Your task to perform on an android device: Go to settings Image 0: 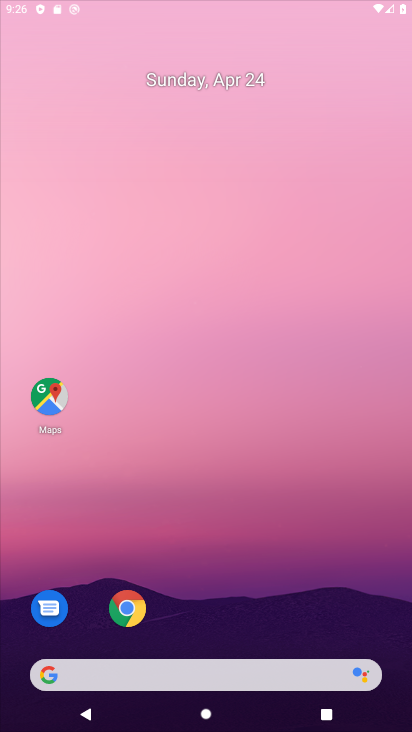
Step 0: click (235, 228)
Your task to perform on an android device: Go to settings Image 1: 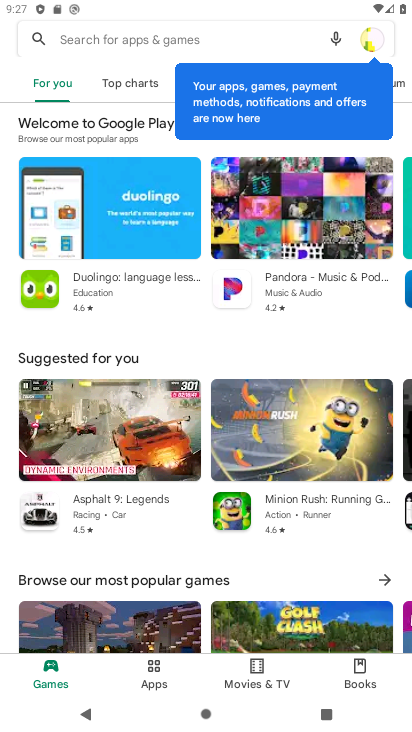
Step 1: press home button
Your task to perform on an android device: Go to settings Image 2: 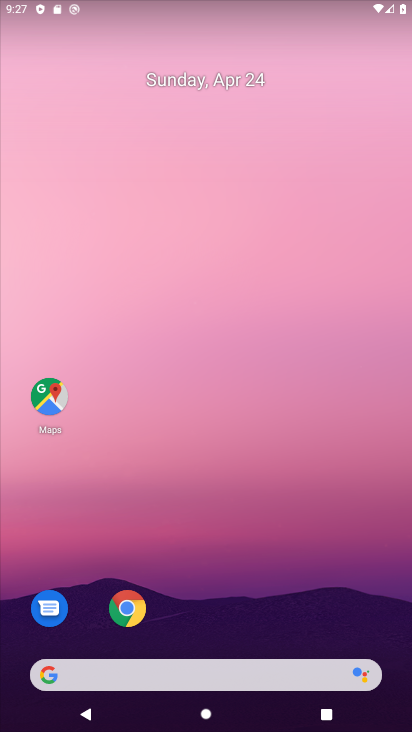
Step 2: drag from (316, 692) to (218, 146)
Your task to perform on an android device: Go to settings Image 3: 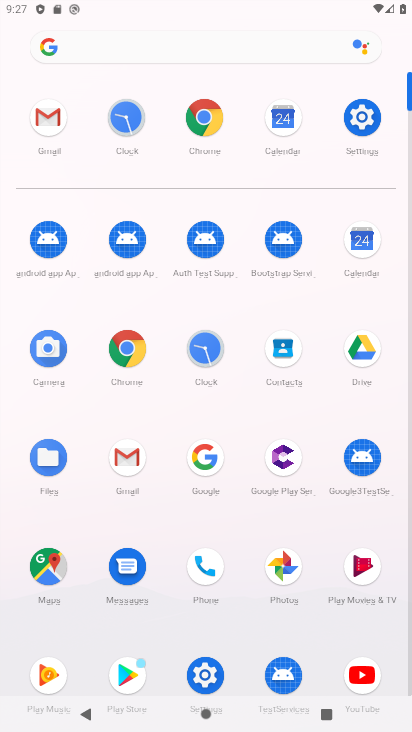
Step 3: click (353, 118)
Your task to perform on an android device: Go to settings Image 4: 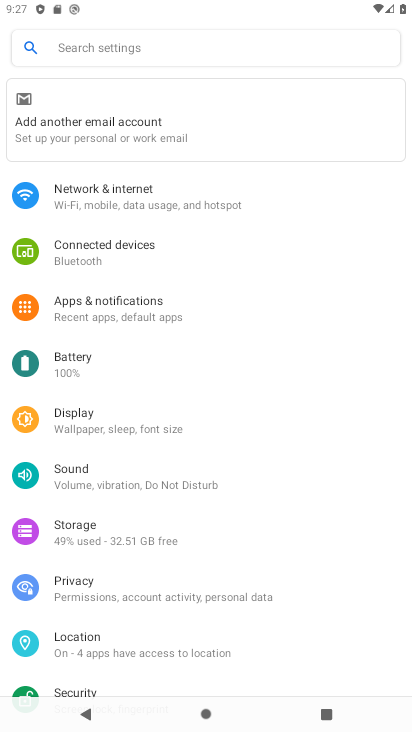
Step 4: task complete